Your task to perform on an android device: Check the weather Image 0: 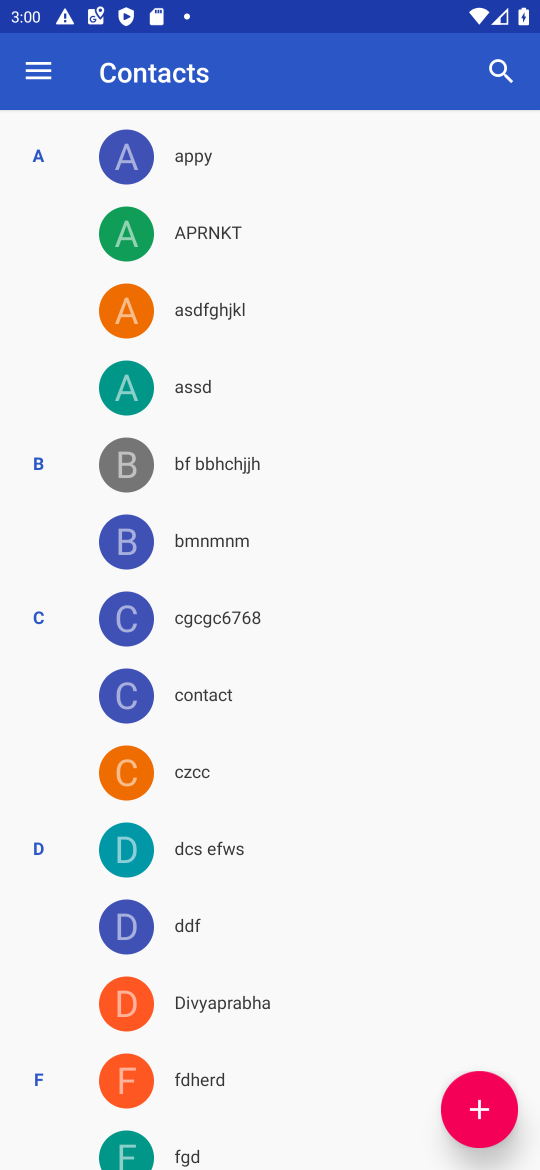
Step 0: press home button
Your task to perform on an android device: Check the weather Image 1: 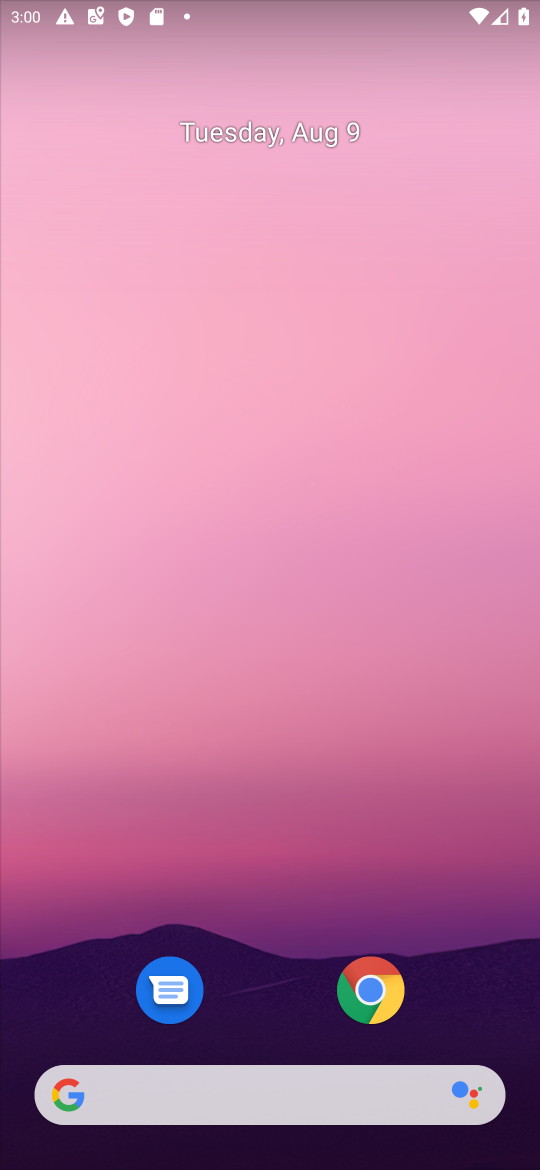
Step 1: drag from (467, 1083) to (399, 204)
Your task to perform on an android device: Check the weather Image 2: 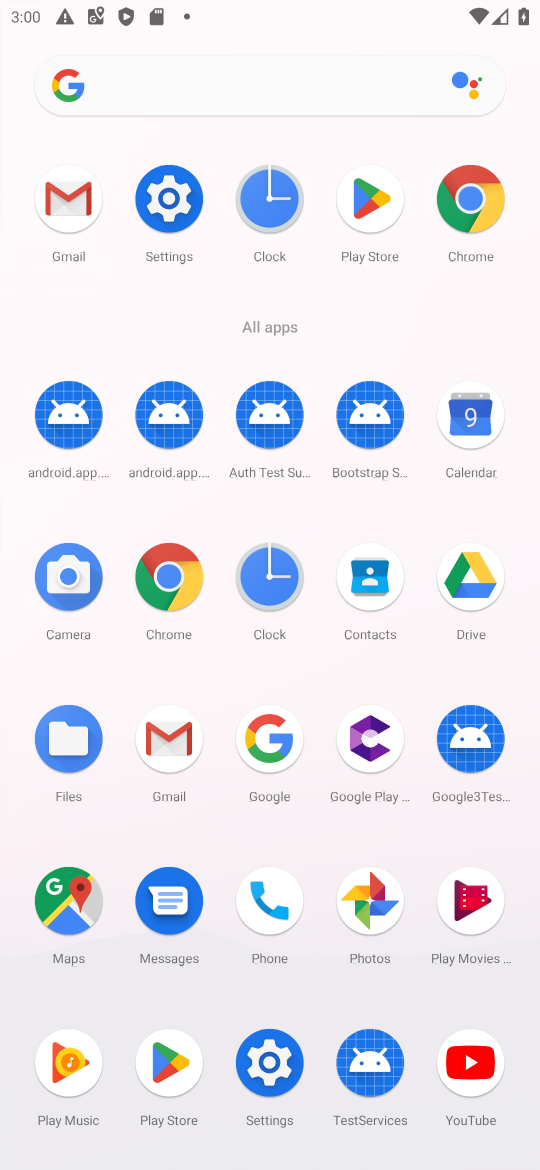
Step 2: click (158, 571)
Your task to perform on an android device: Check the weather Image 3: 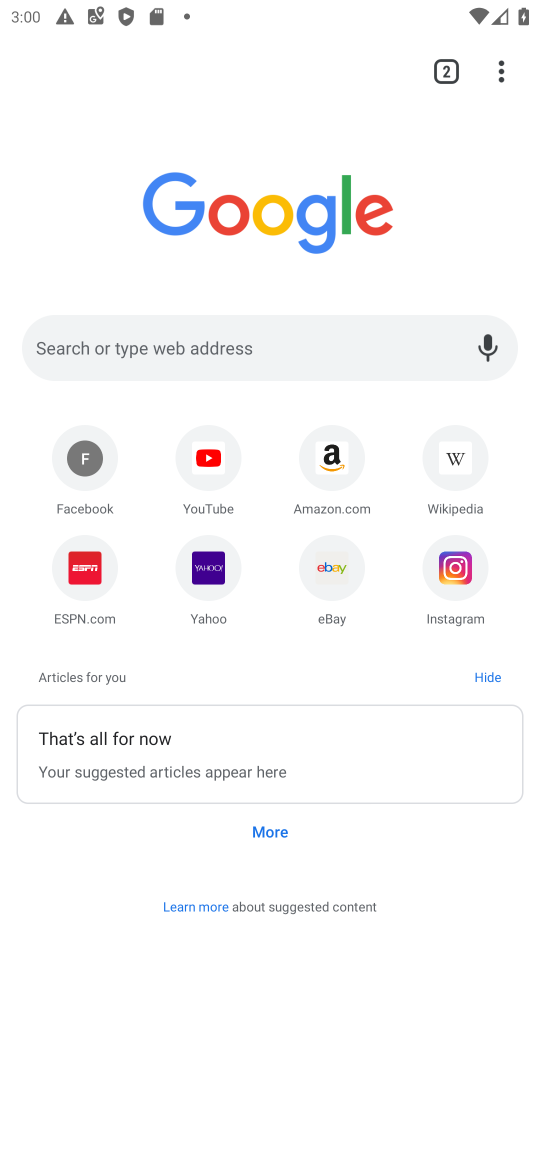
Step 3: click (257, 351)
Your task to perform on an android device: Check the weather Image 4: 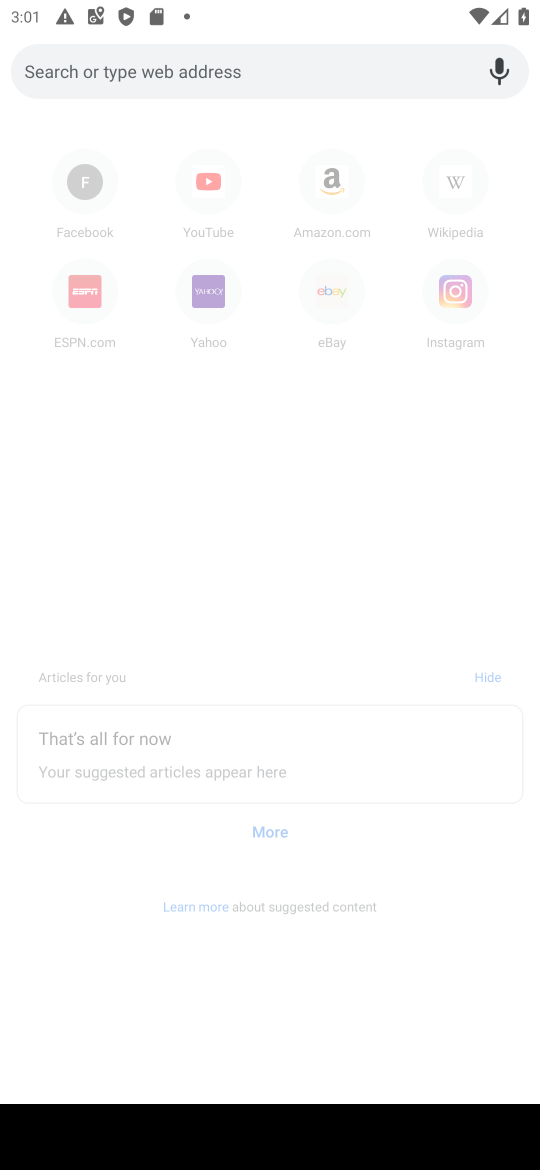
Step 4: type "check the weather"
Your task to perform on an android device: Check the weather Image 5: 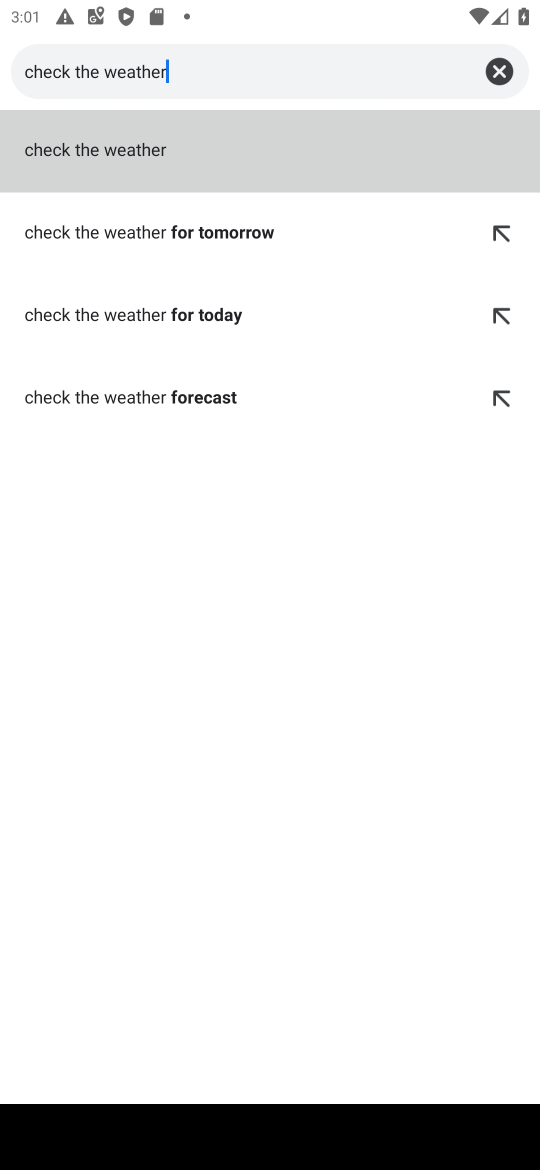
Step 5: click (135, 161)
Your task to perform on an android device: Check the weather Image 6: 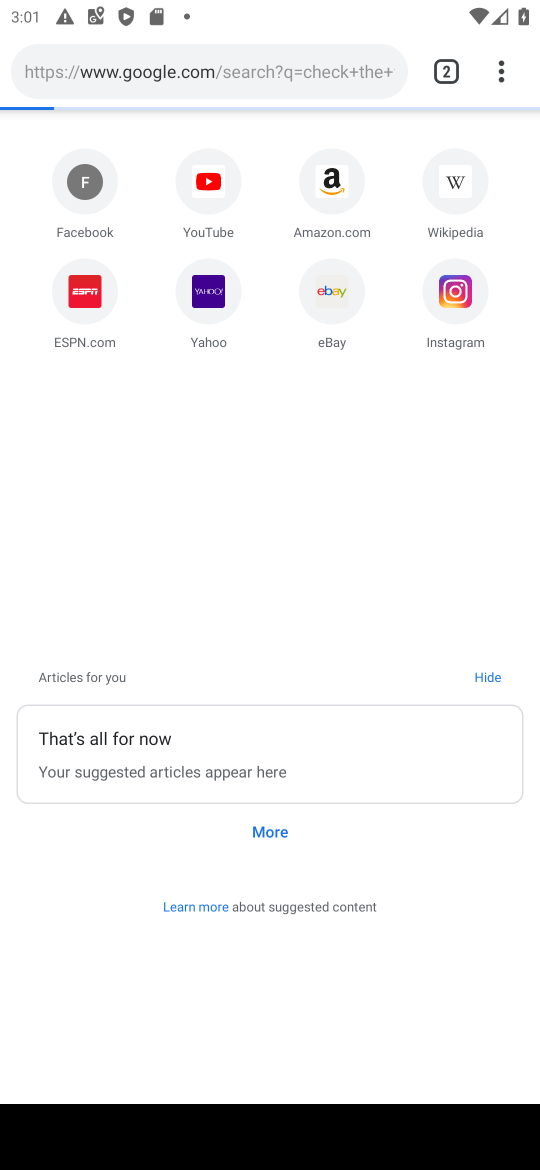
Step 6: click (489, 456)
Your task to perform on an android device: Check the weather Image 7: 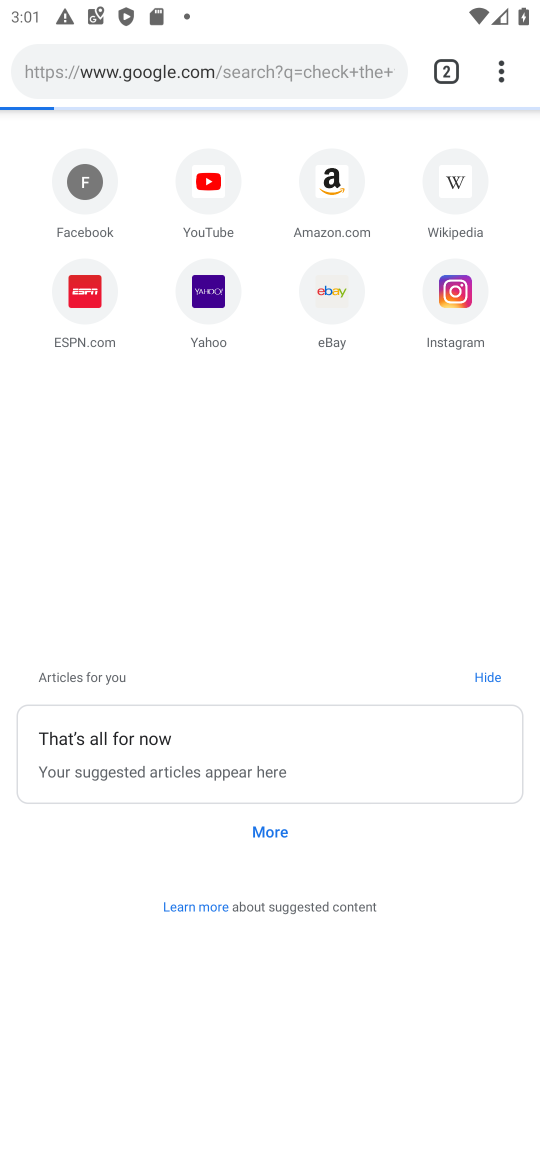
Step 7: click (489, 456)
Your task to perform on an android device: Check the weather Image 8: 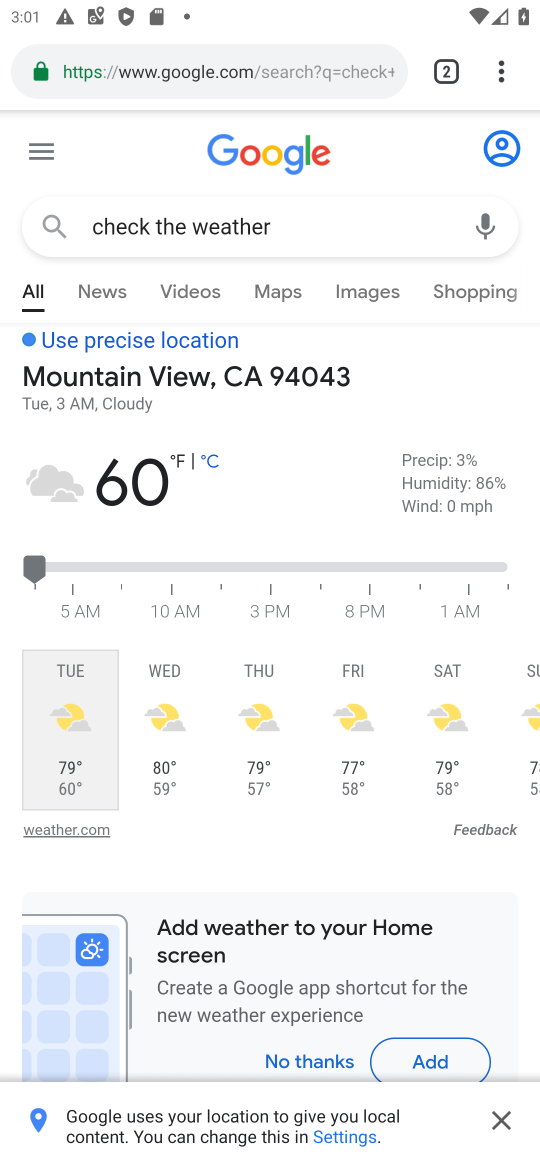
Step 8: task complete